Your task to perform on an android device: Open the phone app and click the voicemail tab. Image 0: 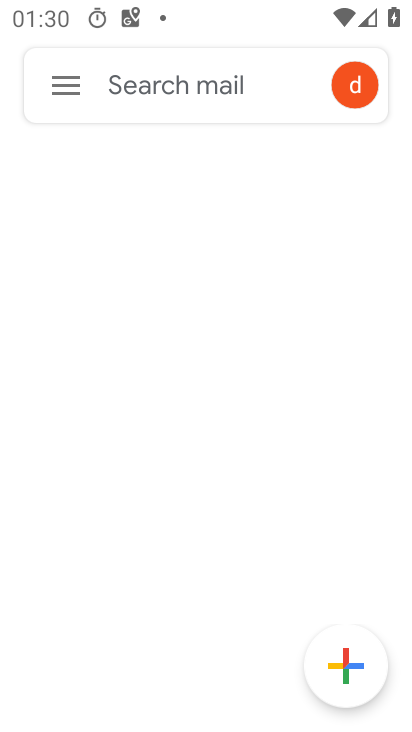
Step 0: press home button
Your task to perform on an android device: Open the phone app and click the voicemail tab. Image 1: 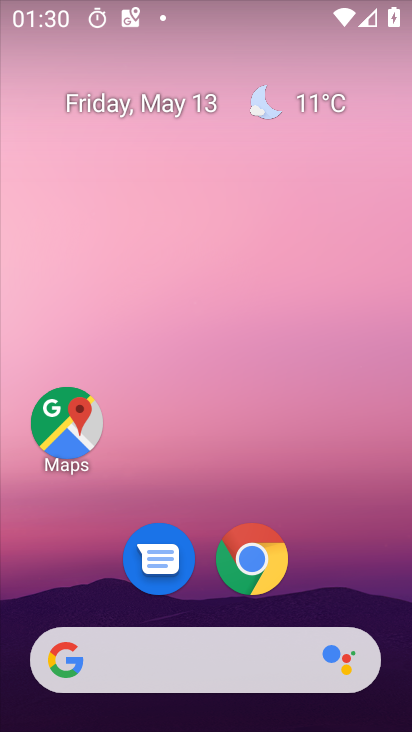
Step 1: drag from (307, 540) to (327, 106)
Your task to perform on an android device: Open the phone app and click the voicemail tab. Image 2: 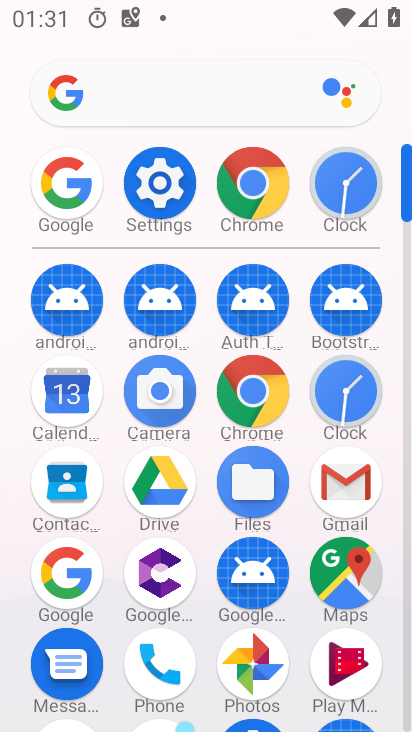
Step 2: click (151, 668)
Your task to perform on an android device: Open the phone app and click the voicemail tab. Image 3: 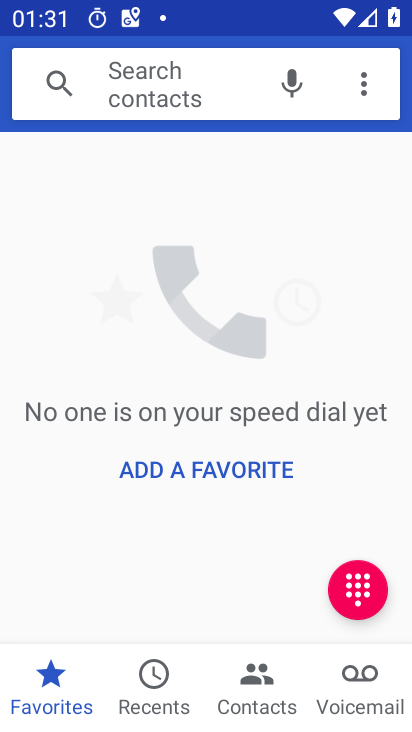
Step 3: click (345, 693)
Your task to perform on an android device: Open the phone app and click the voicemail tab. Image 4: 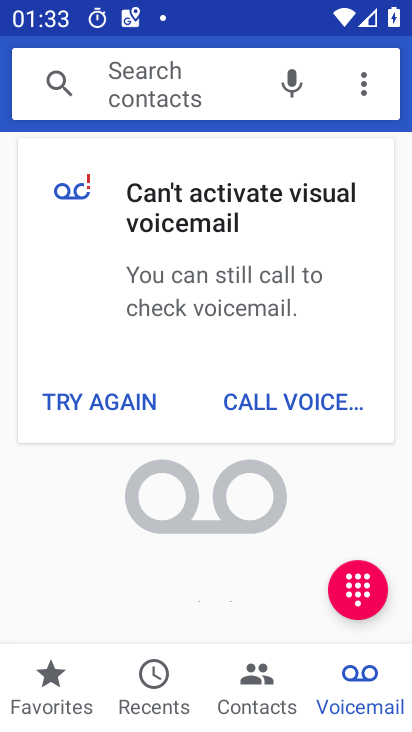
Step 4: task complete